Your task to perform on an android device: toggle sleep mode Image 0: 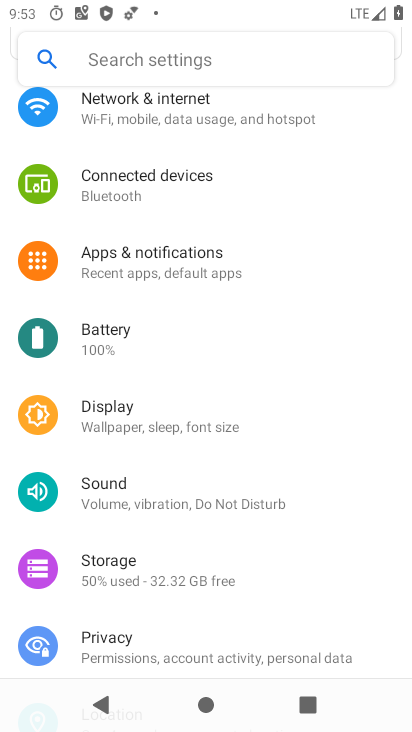
Step 0: press home button
Your task to perform on an android device: toggle sleep mode Image 1: 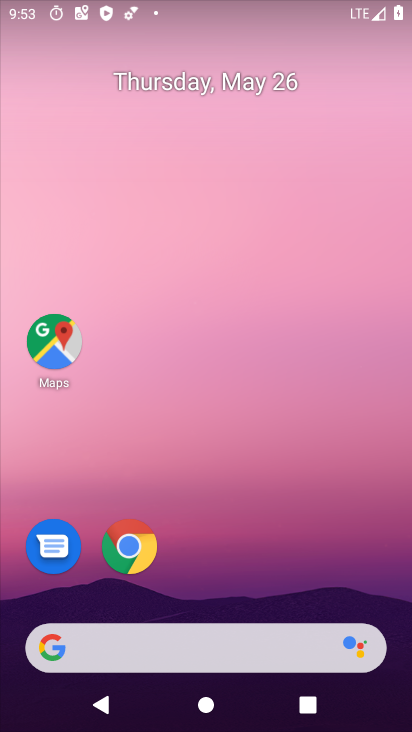
Step 1: drag from (347, 573) to (322, 244)
Your task to perform on an android device: toggle sleep mode Image 2: 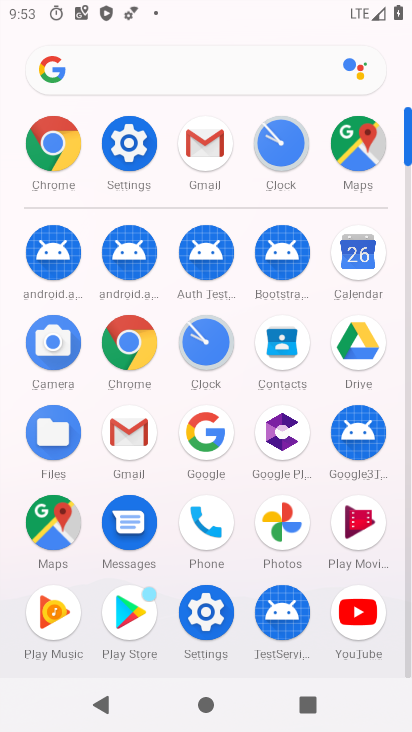
Step 2: click (138, 156)
Your task to perform on an android device: toggle sleep mode Image 3: 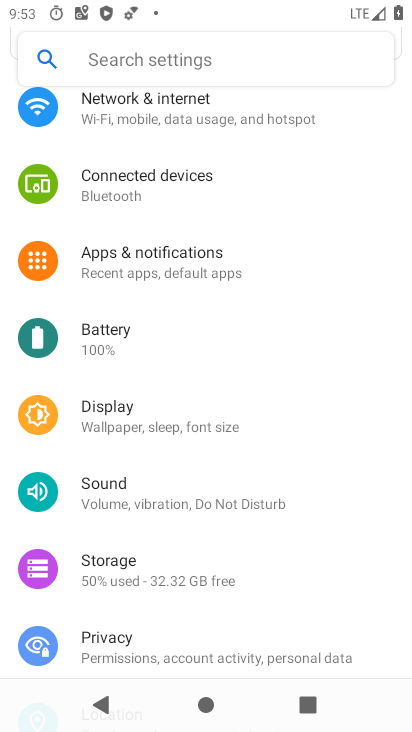
Step 3: click (192, 61)
Your task to perform on an android device: toggle sleep mode Image 4: 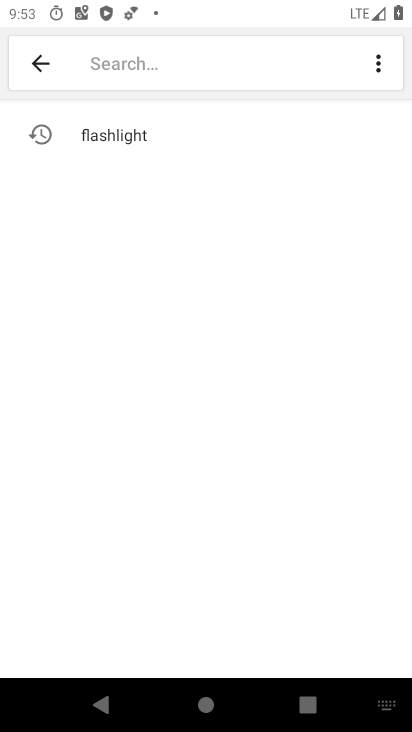
Step 4: type "sleep mode"
Your task to perform on an android device: toggle sleep mode Image 5: 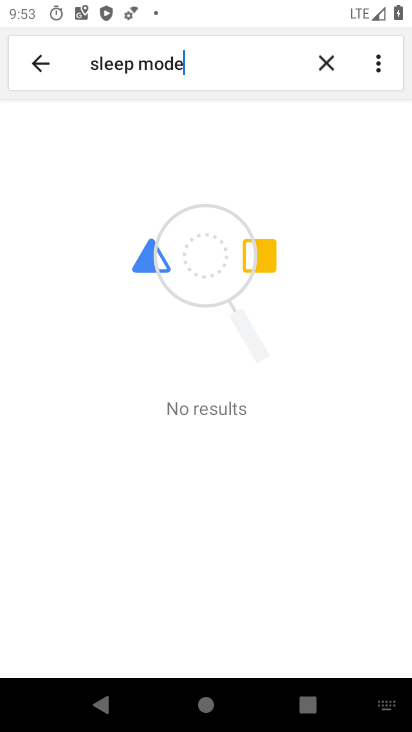
Step 5: task complete